Your task to perform on an android device: Open Google Chrome and click the shortcut for Amazon.com Image 0: 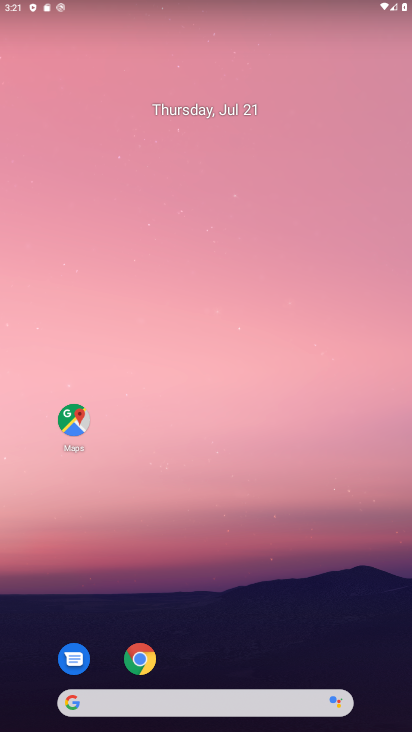
Step 0: click (141, 663)
Your task to perform on an android device: Open Google Chrome and click the shortcut for Amazon.com Image 1: 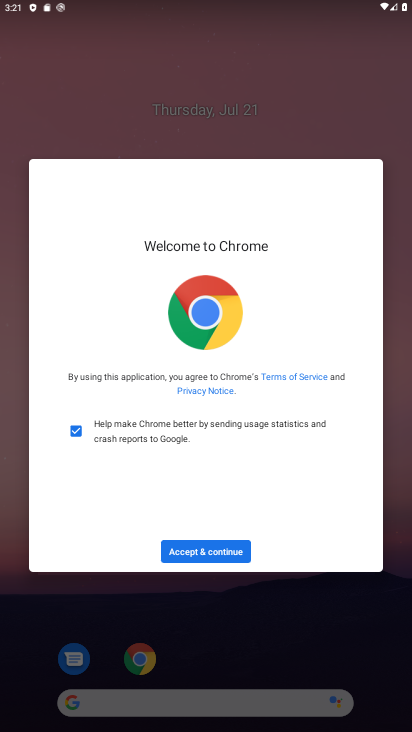
Step 1: click (225, 546)
Your task to perform on an android device: Open Google Chrome and click the shortcut for Amazon.com Image 2: 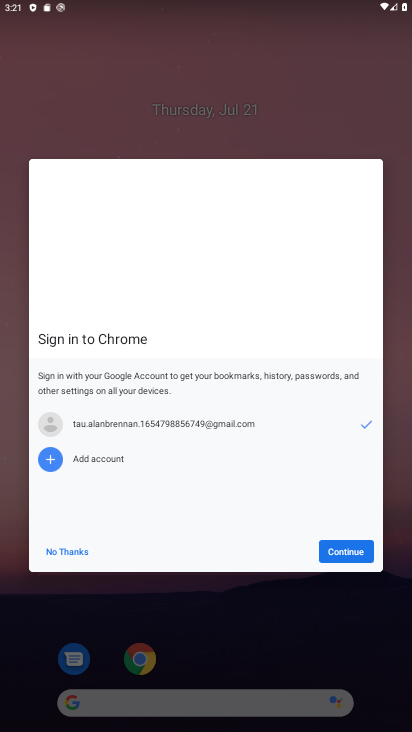
Step 2: click (356, 553)
Your task to perform on an android device: Open Google Chrome and click the shortcut for Amazon.com Image 3: 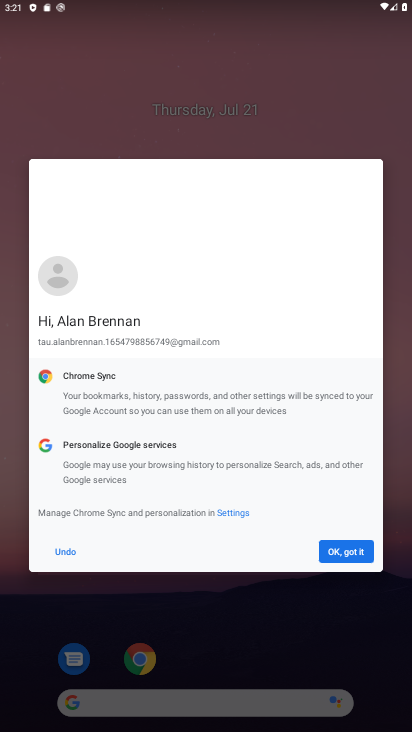
Step 3: click (349, 553)
Your task to perform on an android device: Open Google Chrome and click the shortcut for Amazon.com Image 4: 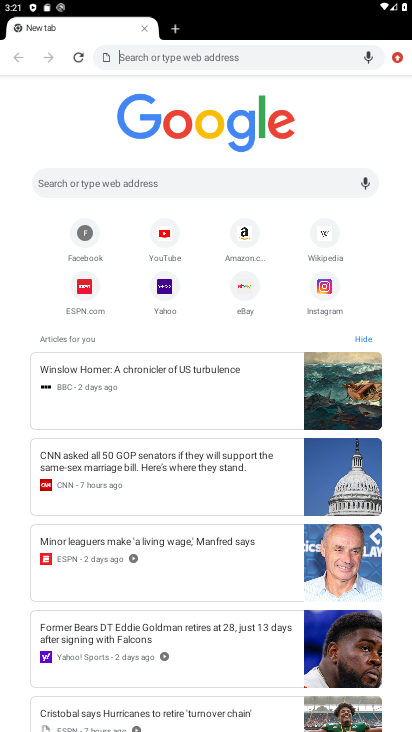
Step 4: click (246, 233)
Your task to perform on an android device: Open Google Chrome and click the shortcut for Amazon.com Image 5: 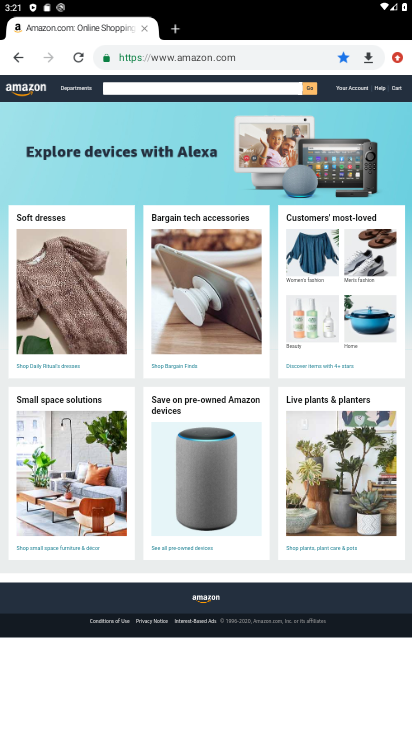
Step 5: task complete